Your task to perform on an android device: What is the news today? Image 0: 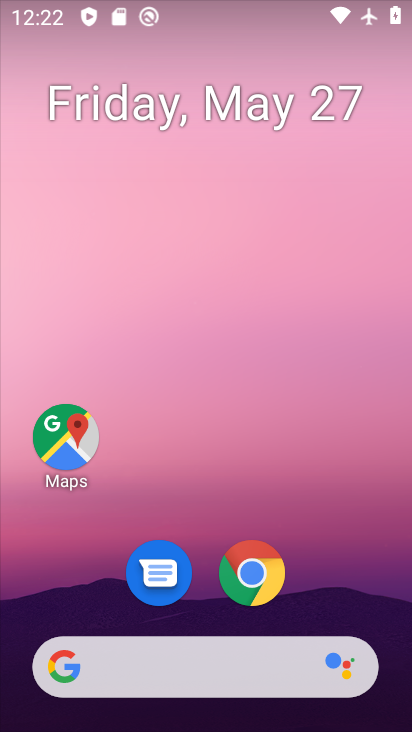
Step 0: drag from (297, 316) to (308, 63)
Your task to perform on an android device: What is the news today? Image 1: 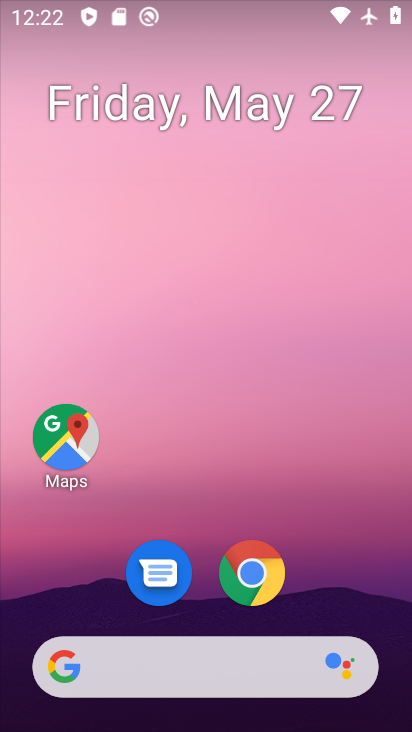
Step 1: drag from (336, 594) to (332, 31)
Your task to perform on an android device: What is the news today? Image 2: 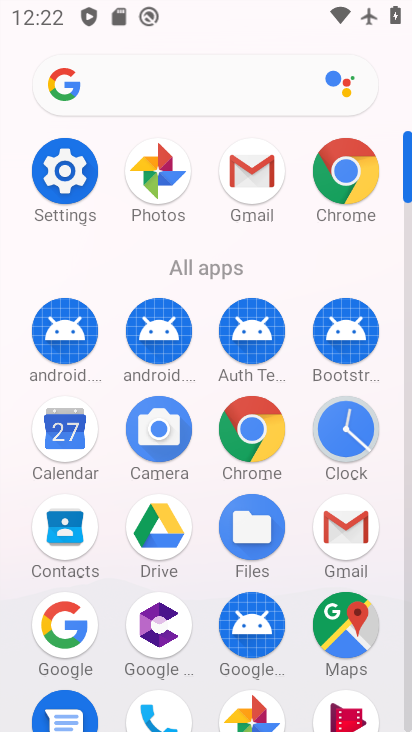
Step 2: click (266, 426)
Your task to perform on an android device: What is the news today? Image 3: 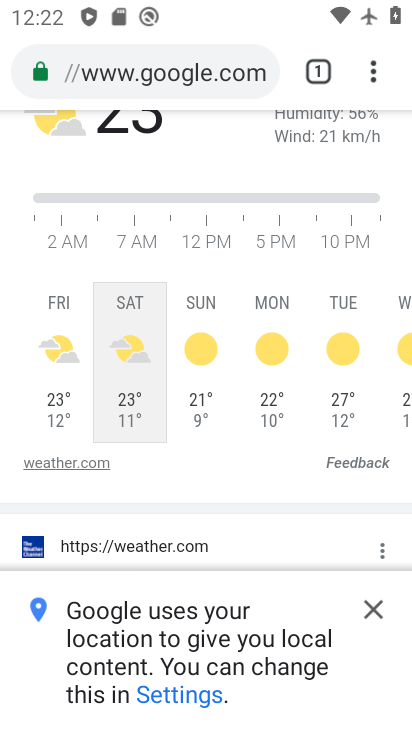
Step 3: click (230, 79)
Your task to perform on an android device: What is the news today? Image 4: 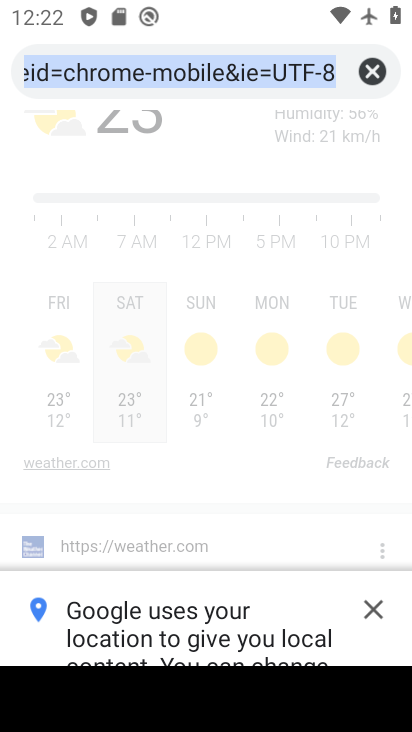
Step 4: type "news"
Your task to perform on an android device: What is the news today? Image 5: 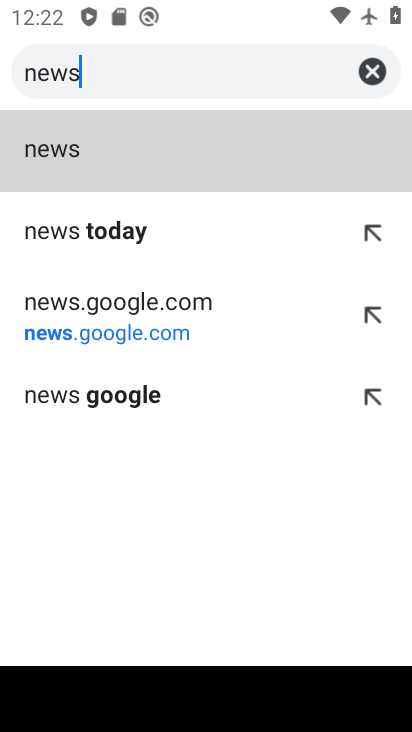
Step 5: click (94, 325)
Your task to perform on an android device: What is the news today? Image 6: 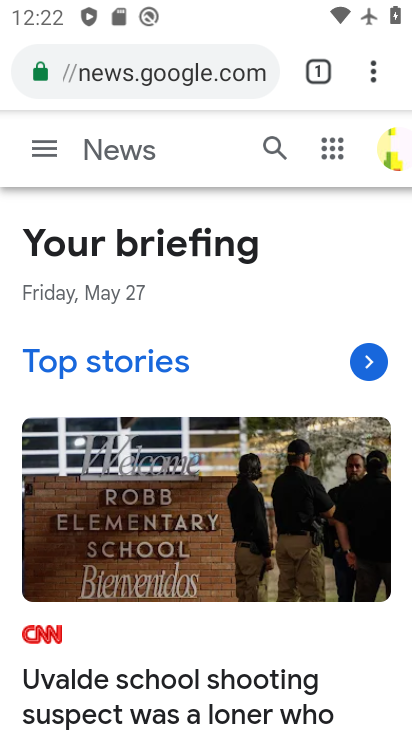
Step 6: task complete